Your task to perform on an android device: What's the weather today? Image 0: 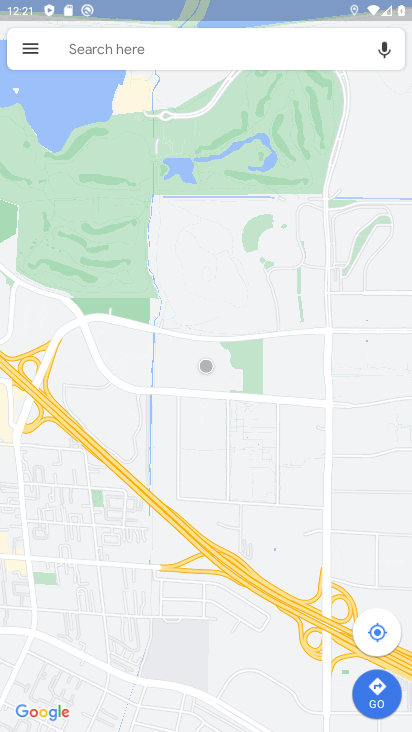
Step 0: press back button
Your task to perform on an android device: What's the weather today? Image 1: 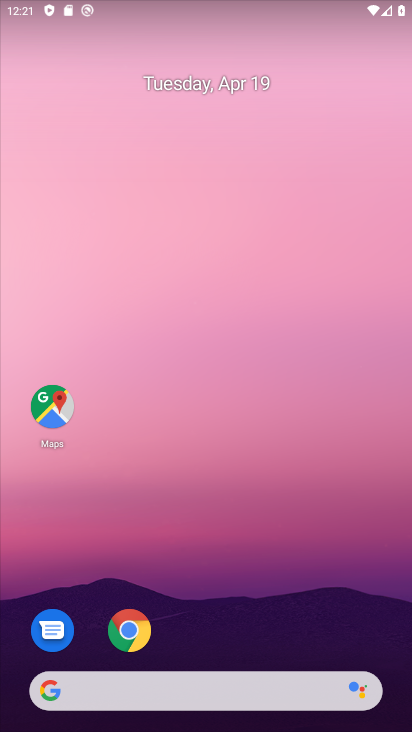
Step 1: drag from (12, 272) to (366, 255)
Your task to perform on an android device: What's the weather today? Image 2: 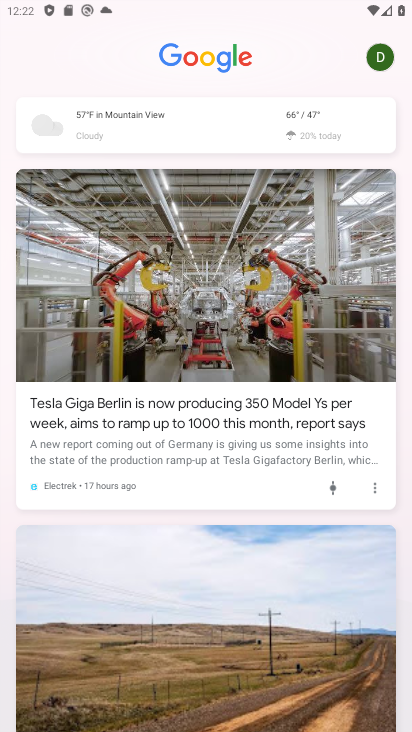
Step 2: click (297, 130)
Your task to perform on an android device: What's the weather today? Image 3: 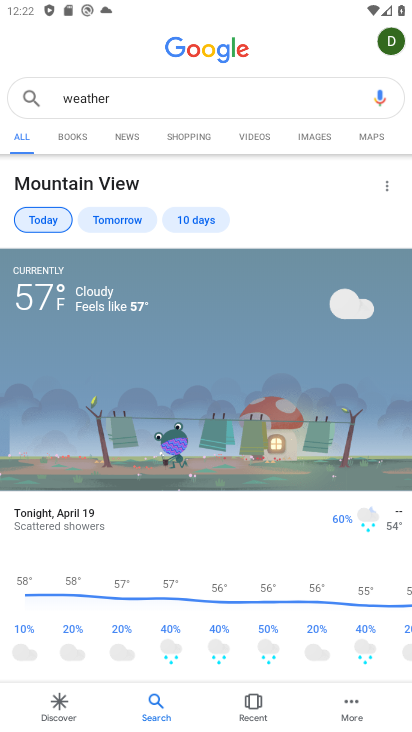
Step 3: task complete